Your task to perform on an android device: Open notification settings Image 0: 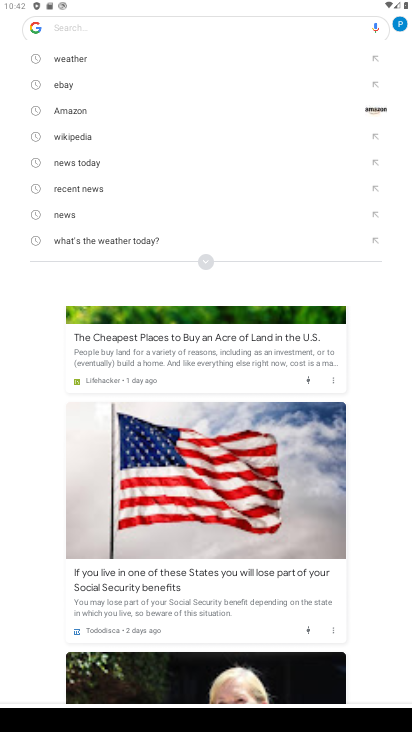
Step 0: press home button
Your task to perform on an android device: Open notification settings Image 1: 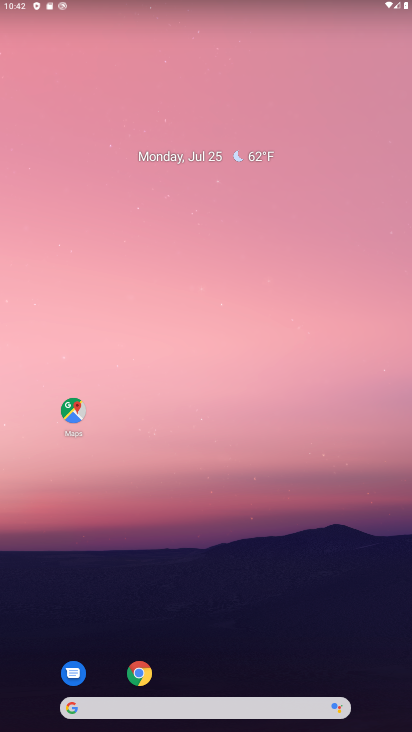
Step 1: drag from (260, 588) to (189, 25)
Your task to perform on an android device: Open notification settings Image 2: 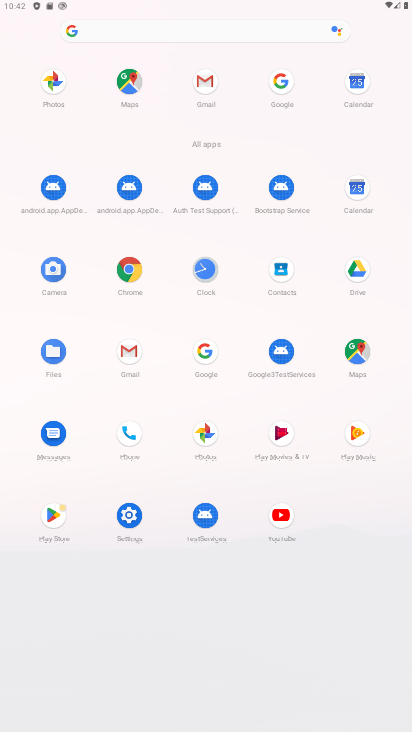
Step 2: click (128, 521)
Your task to perform on an android device: Open notification settings Image 3: 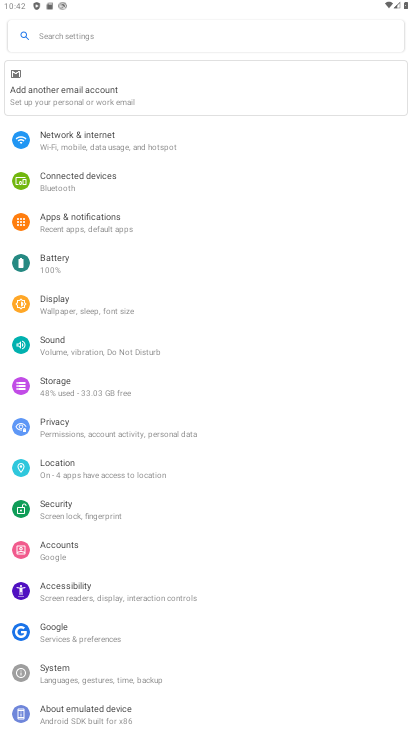
Step 3: click (99, 212)
Your task to perform on an android device: Open notification settings Image 4: 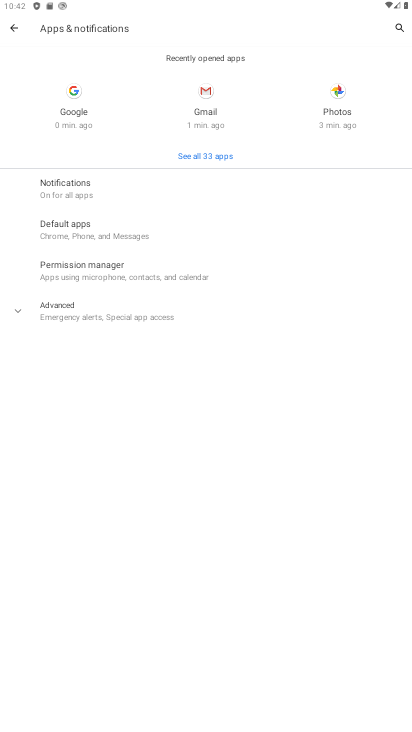
Step 4: click (87, 184)
Your task to perform on an android device: Open notification settings Image 5: 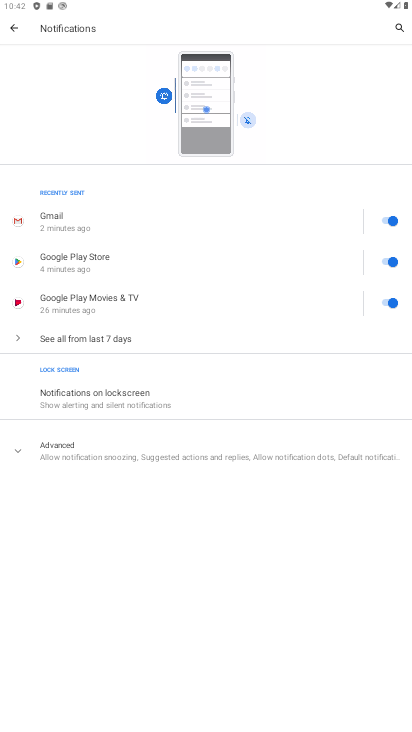
Step 5: task complete